Your task to perform on an android device: find photos in the google photos app Image 0: 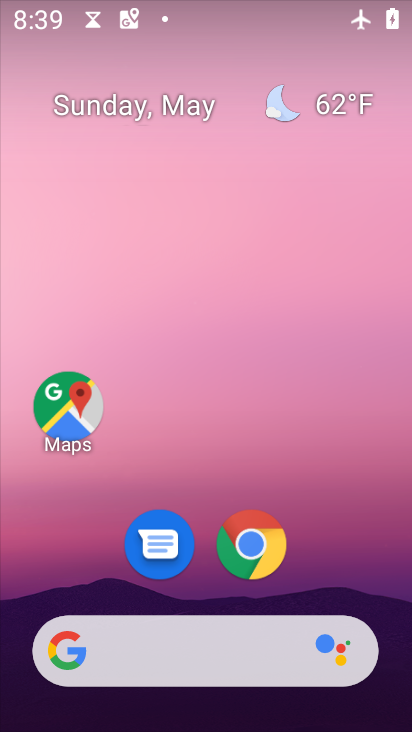
Step 0: click (277, 112)
Your task to perform on an android device: find photos in the google photos app Image 1: 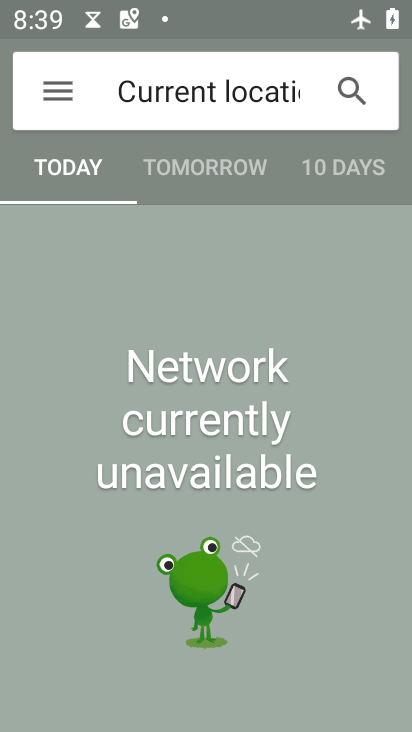
Step 1: press home button
Your task to perform on an android device: find photos in the google photos app Image 2: 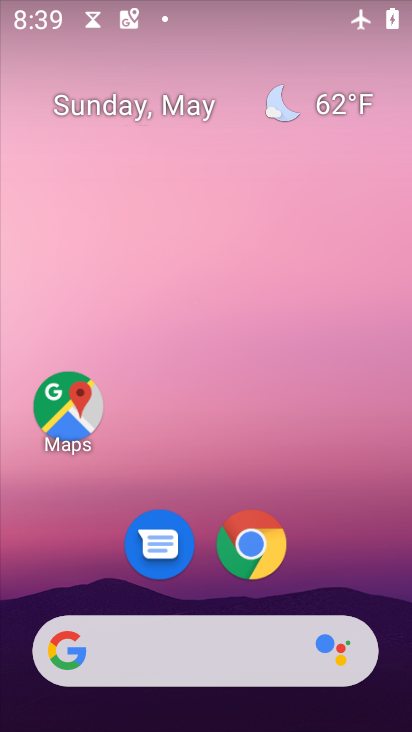
Step 2: drag from (313, 499) to (217, 13)
Your task to perform on an android device: find photos in the google photos app Image 3: 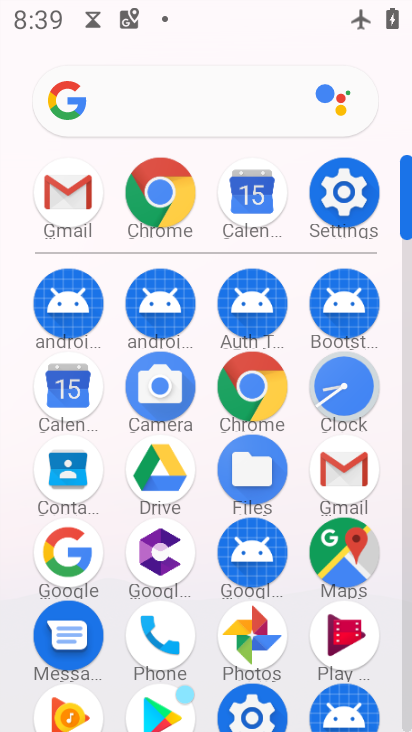
Step 3: click (263, 625)
Your task to perform on an android device: find photos in the google photos app Image 4: 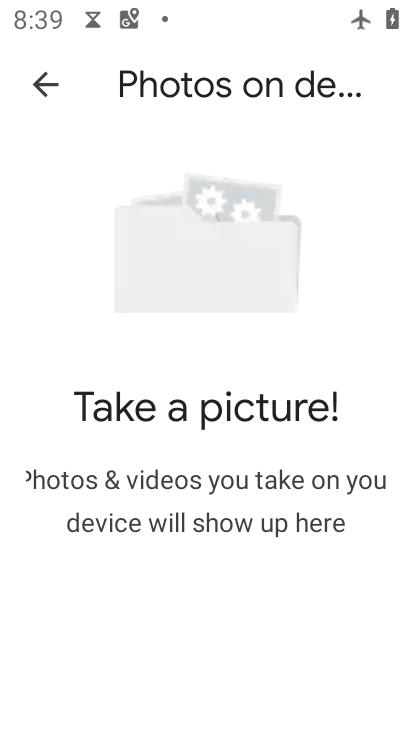
Step 4: click (46, 81)
Your task to perform on an android device: find photos in the google photos app Image 5: 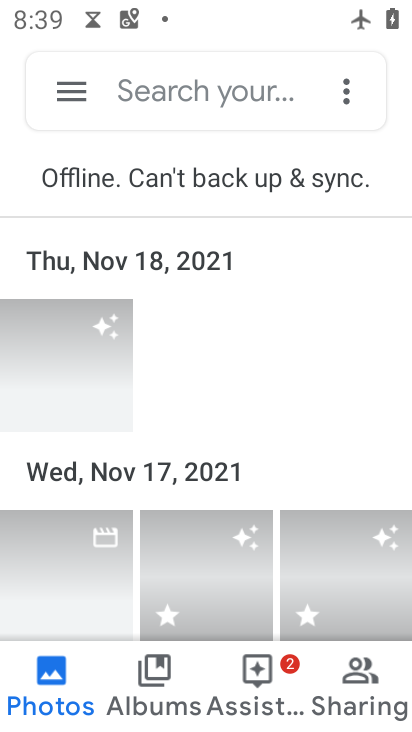
Step 5: task complete